Your task to perform on an android device: Open calendar and show me the first week of next month Image 0: 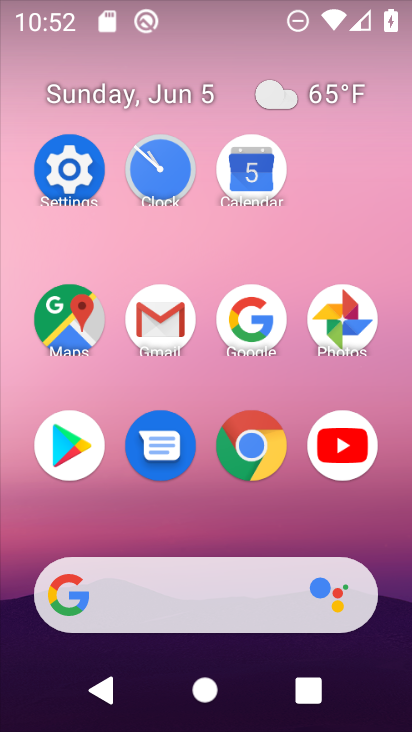
Step 0: click (260, 183)
Your task to perform on an android device: Open calendar and show me the first week of next month Image 1: 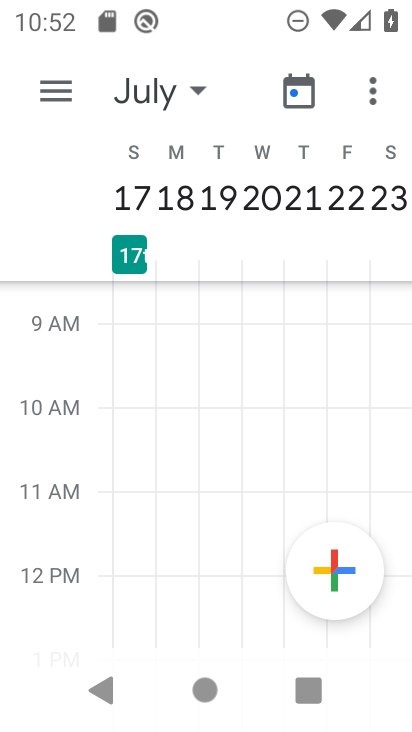
Step 1: click (172, 87)
Your task to perform on an android device: Open calendar and show me the first week of next month Image 2: 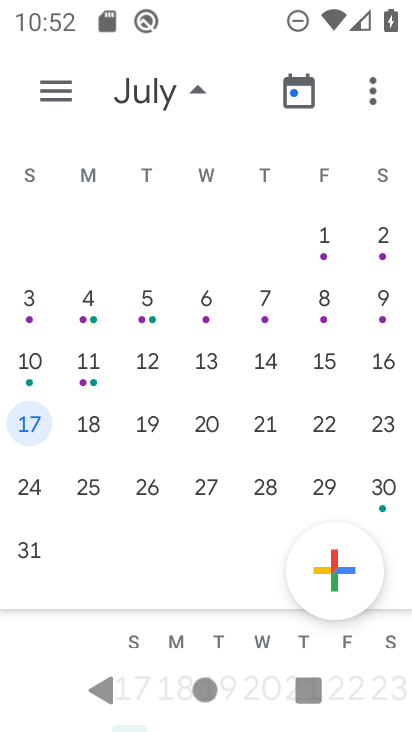
Step 2: click (298, 227)
Your task to perform on an android device: Open calendar and show me the first week of next month Image 3: 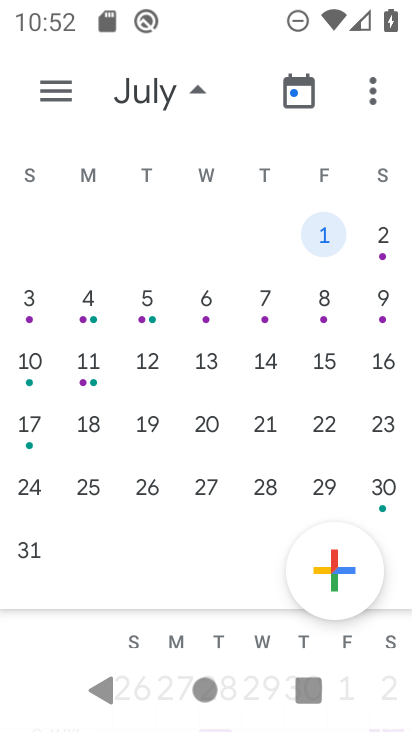
Step 3: click (48, 81)
Your task to perform on an android device: Open calendar and show me the first week of next month Image 4: 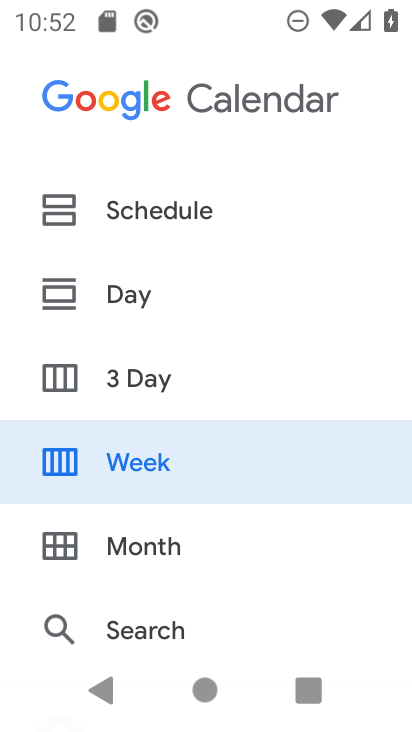
Step 4: click (178, 459)
Your task to perform on an android device: Open calendar and show me the first week of next month Image 5: 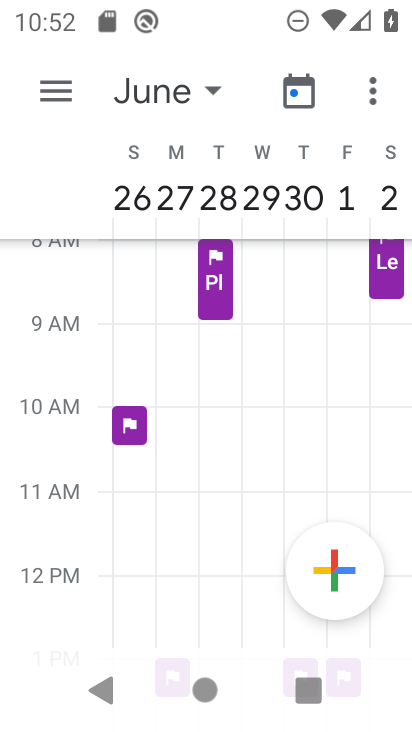
Step 5: task complete